Your task to perform on an android device: Open Wikipedia Image 0: 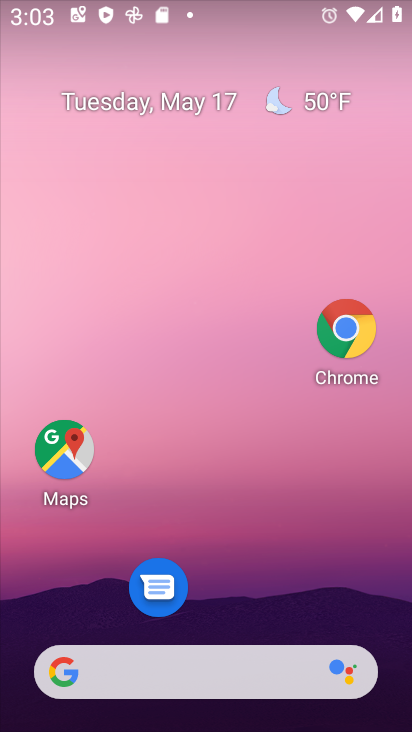
Step 0: click (335, 604)
Your task to perform on an android device: Open Wikipedia Image 1: 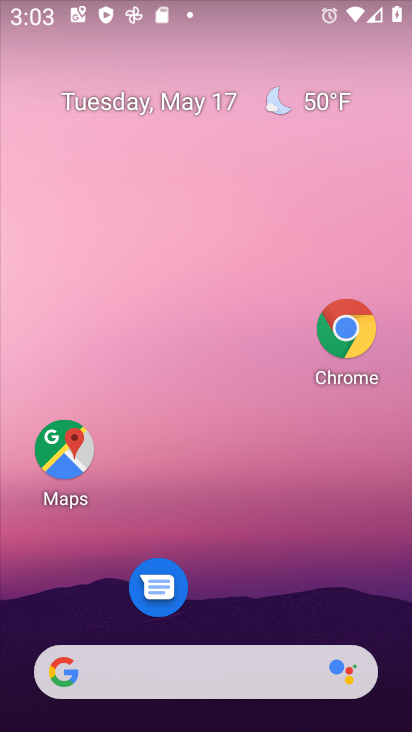
Step 1: click (357, 378)
Your task to perform on an android device: Open Wikipedia Image 2: 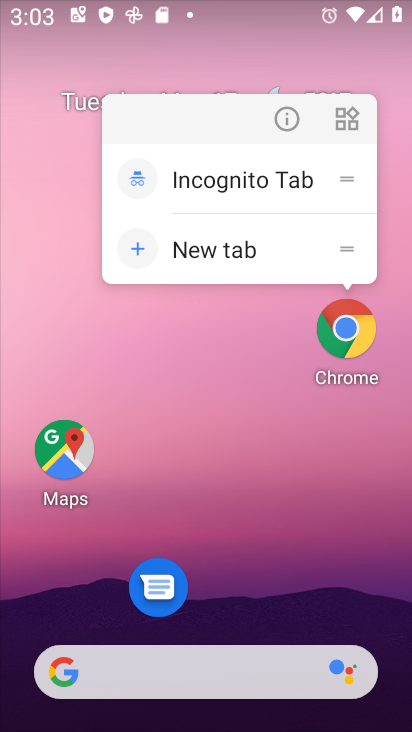
Step 2: click (357, 378)
Your task to perform on an android device: Open Wikipedia Image 3: 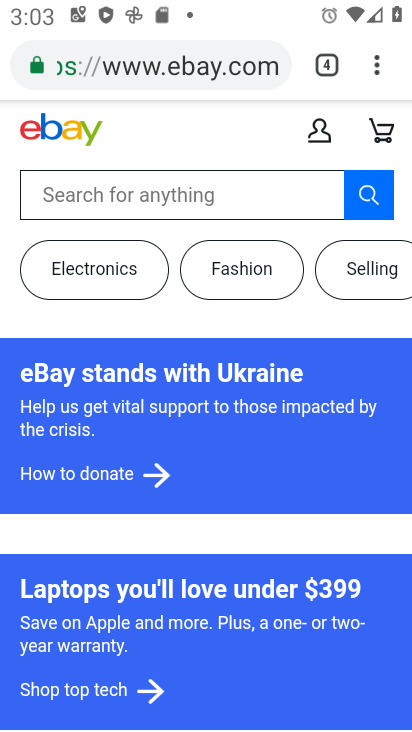
Step 3: click (184, 87)
Your task to perform on an android device: Open Wikipedia Image 4: 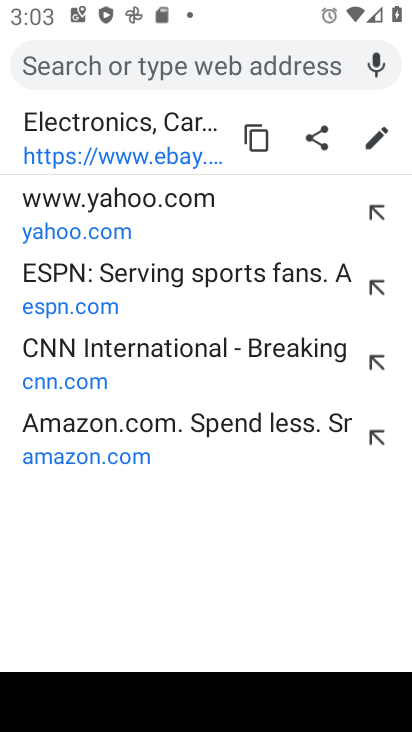
Step 4: type "wikipedia.com"
Your task to perform on an android device: Open Wikipedia Image 5: 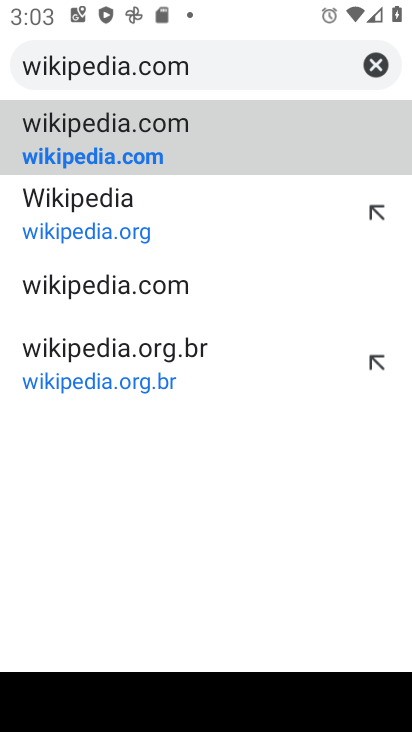
Step 5: click (243, 137)
Your task to perform on an android device: Open Wikipedia Image 6: 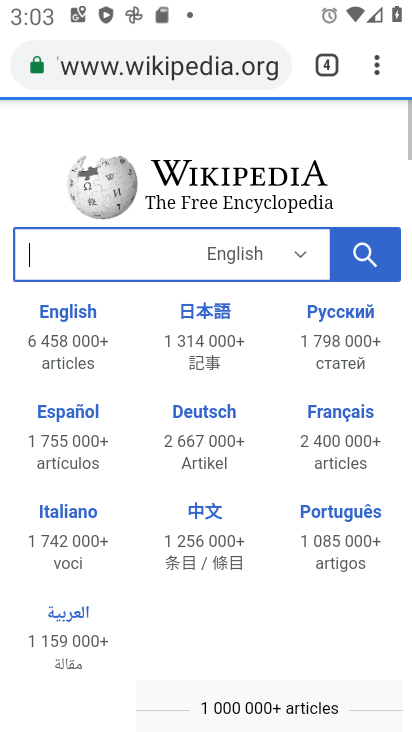
Step 6: task complete